Your task to perform on an android device: set the timer Image 0: 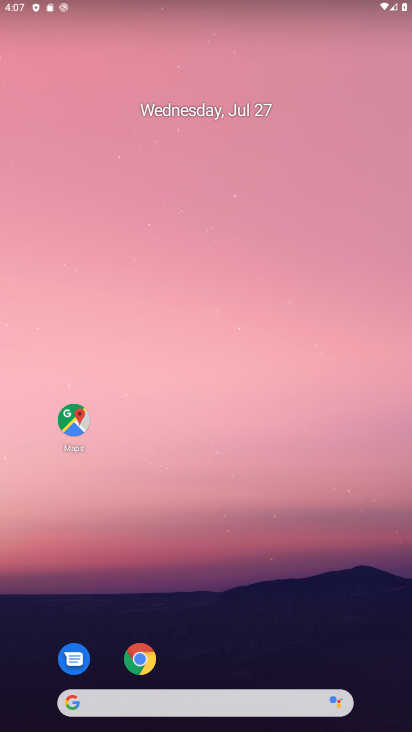
Step 0: press home button
Your task to perform on an android device: set the timer Image 1: 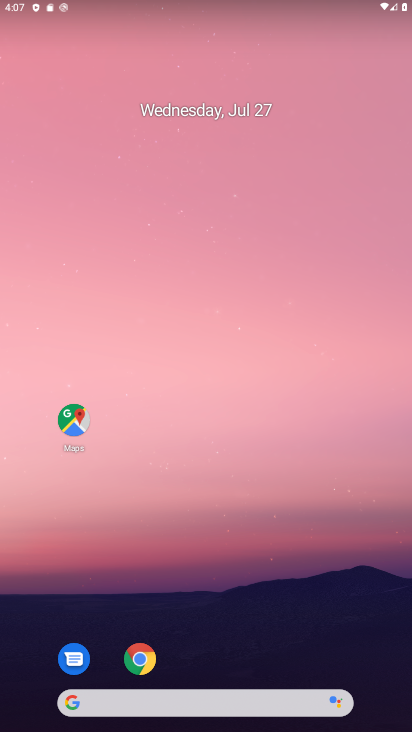
Step 1: drag from (220, 674) to (207, 342)
Your task to perform on an android device: set the timer Image 2: 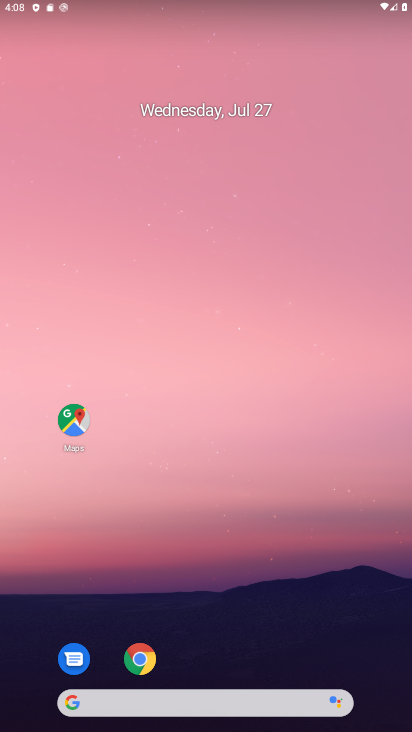
Step 2: drag from (324, 648) to (220, 307)
Your task to perform on an android device: set the timer Image 3: 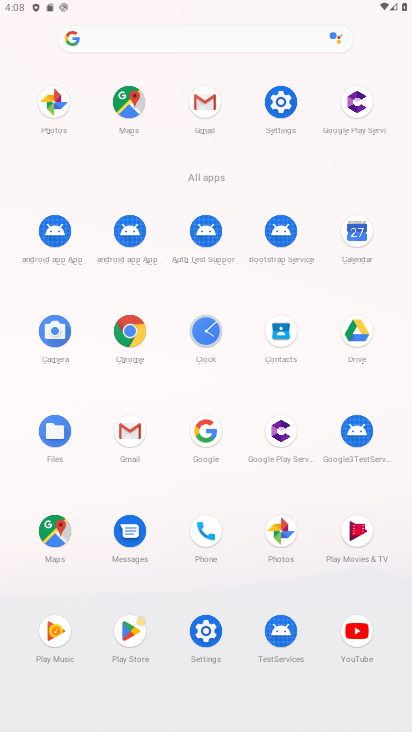
Step 3: click (179, 357)
Your task to perform on an android device: set the timer Image 4: 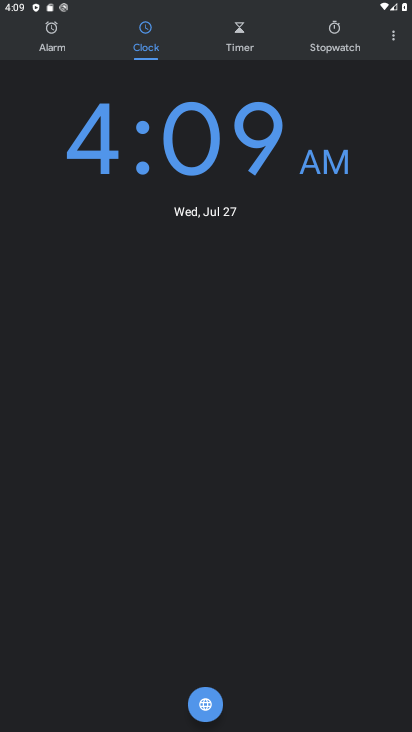
Step 4: click (239, 33)
Your task to perform on an android device: set the timer Image 5: 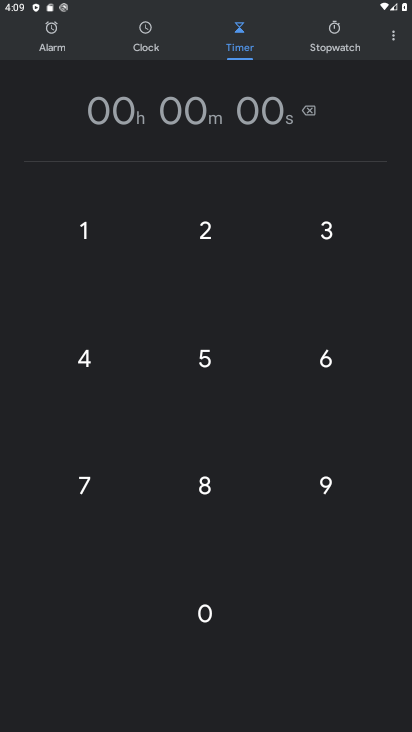
Step 5: click (231, 346)
Your task to perform on an android device: set the timer Image 6: 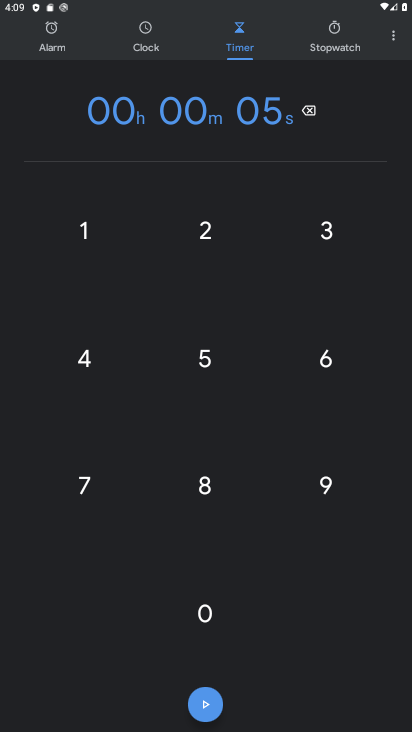
Step 6: click (207, 690)
Your task to perform on an android device: set the timer Image 7: 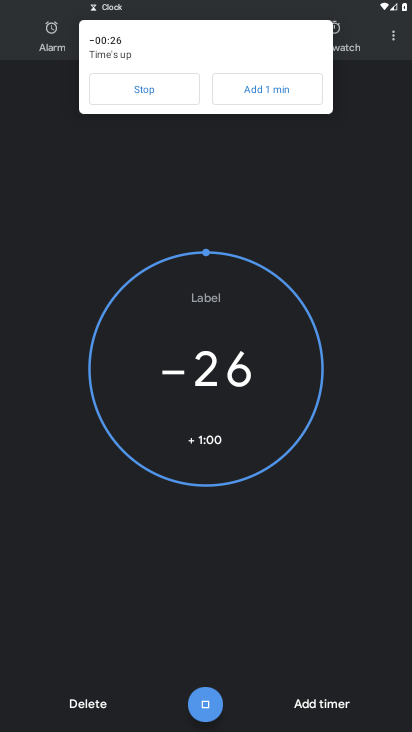
Step 7: task complete